Your task to perform on an android device: find photos in the google photos app Image 0: 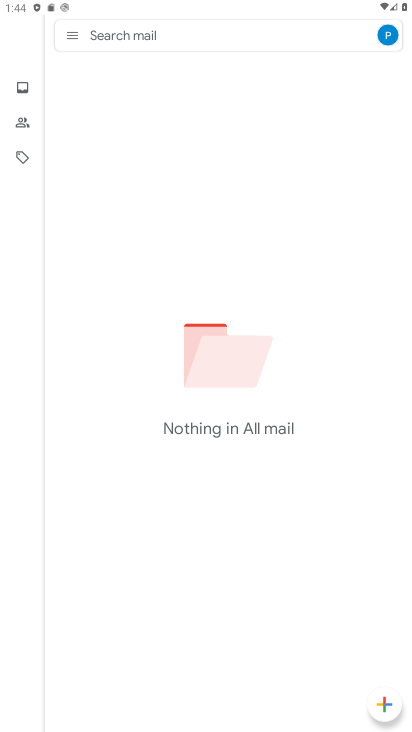
Step 0: press home button
Your task to perform on an android device: find photos in the google photos app Image 1: 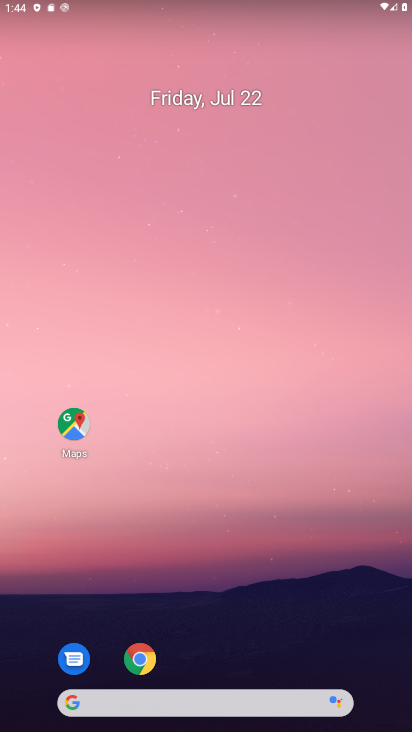
Step 1: drag from (293, 618) to (212, 49)
Your task to perform on an android device: find photos in the google photos app Image 2: 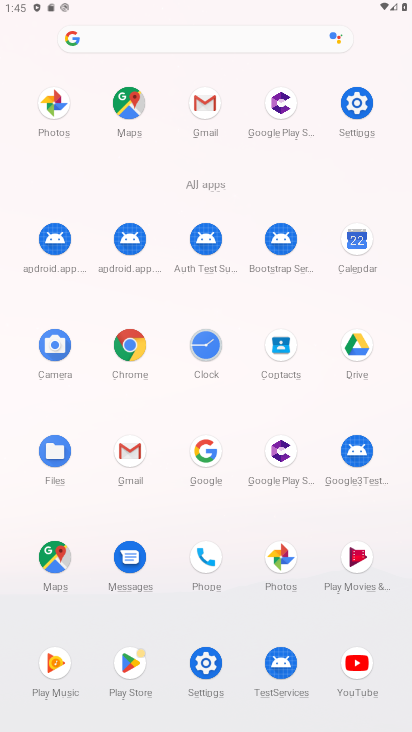
Step 2: click (285, 551)
Your task to perform on an android device: find photos in the google photos app Image 3: 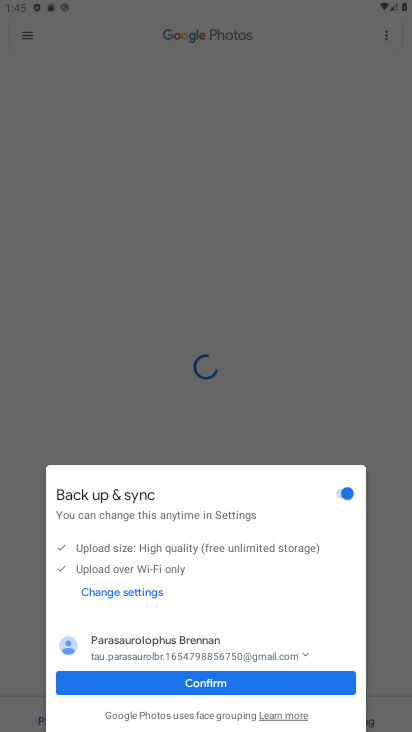
Step 3: click (313, 689)
Your task to perform on an android device: find photos in the google photos app Image 4: 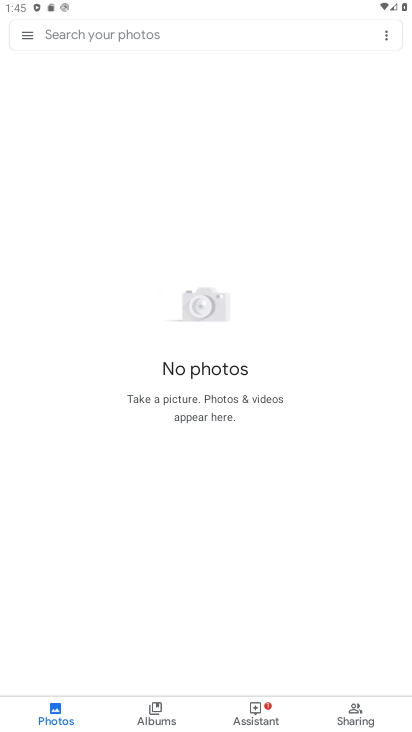
Step 4: task complete